Your task to perform on an android device: open chrome privacy settings Image 0: 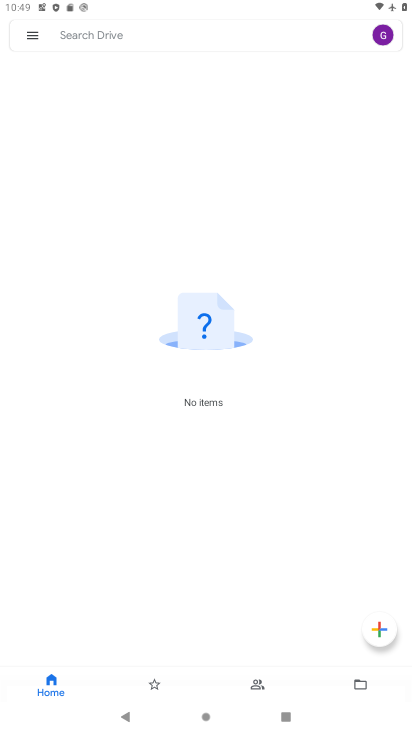
Step 0: task complete